Your task to perform on an android device: Open the calendar app, open the side menu, and click the "Day" option Image 0: 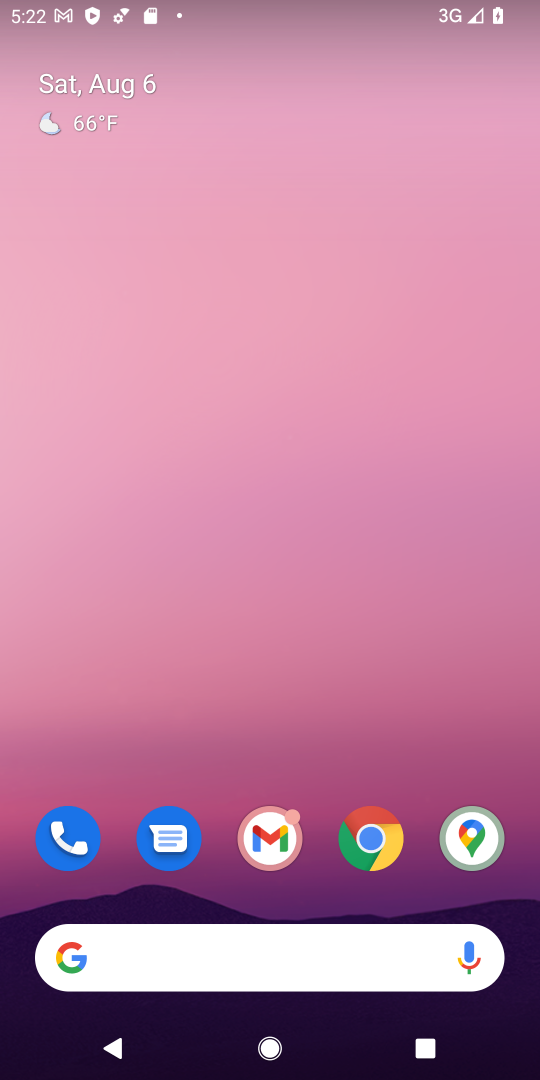
Step 0: drag from (291, 607) to (283, 11)
Your task to perform on an android device: Open the calendar app, open the side menu, and click the "Day" option Image 1: 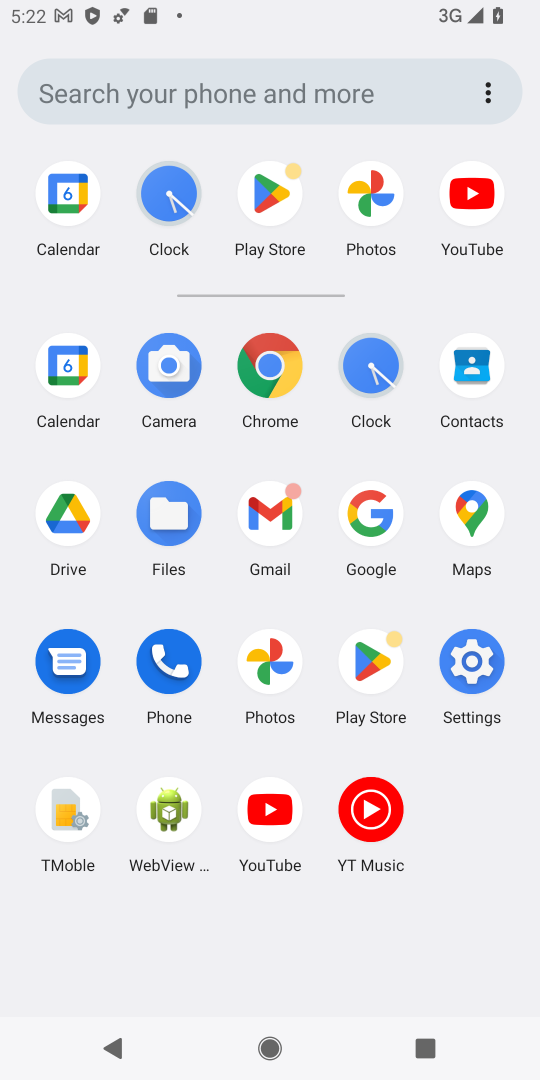
Step 1: click (79, 189)
Your task to perform on an android device: Open the calendar app, open the side menu, and click the "Day" option Image 2: 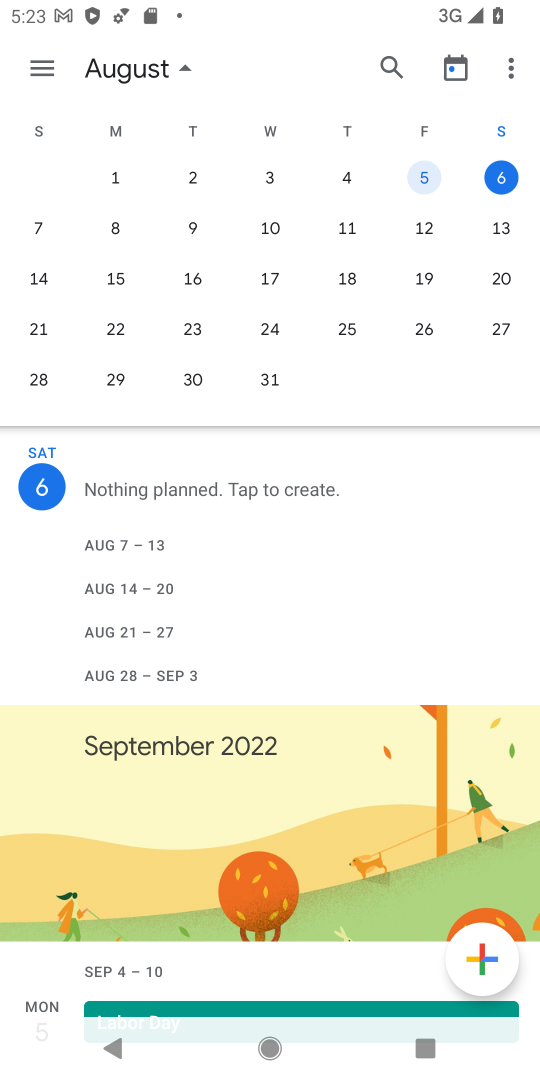
Step 2: click (33, 78)
Your task to perform on an android device: Open the calendar app, open the side menu, and click the "Day" option Image 3: 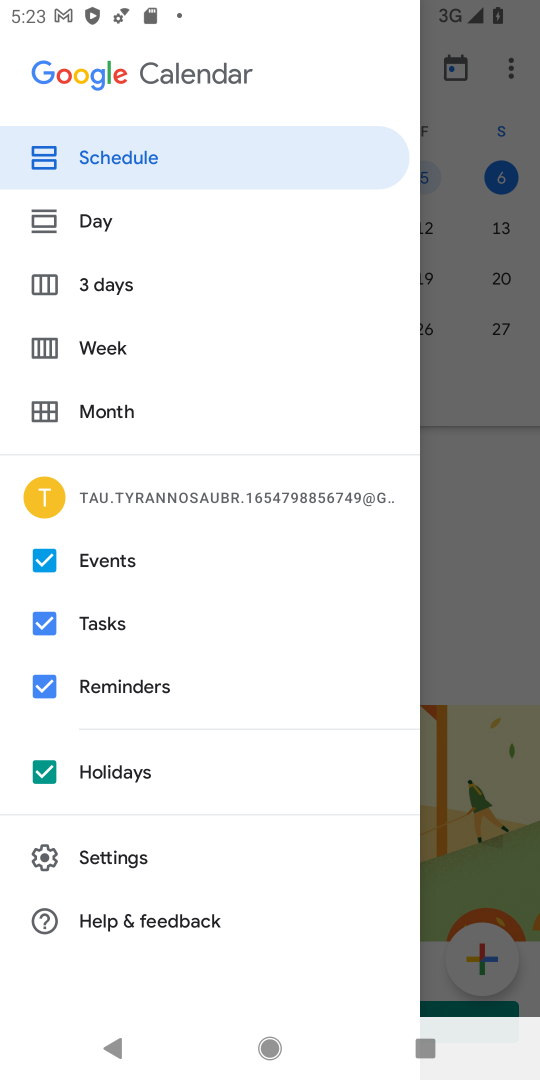
Step 3: click (117, 225)
Your task to perform on an android device: Open the calendar app, open the side menu, and click the "Day" option Image 4: 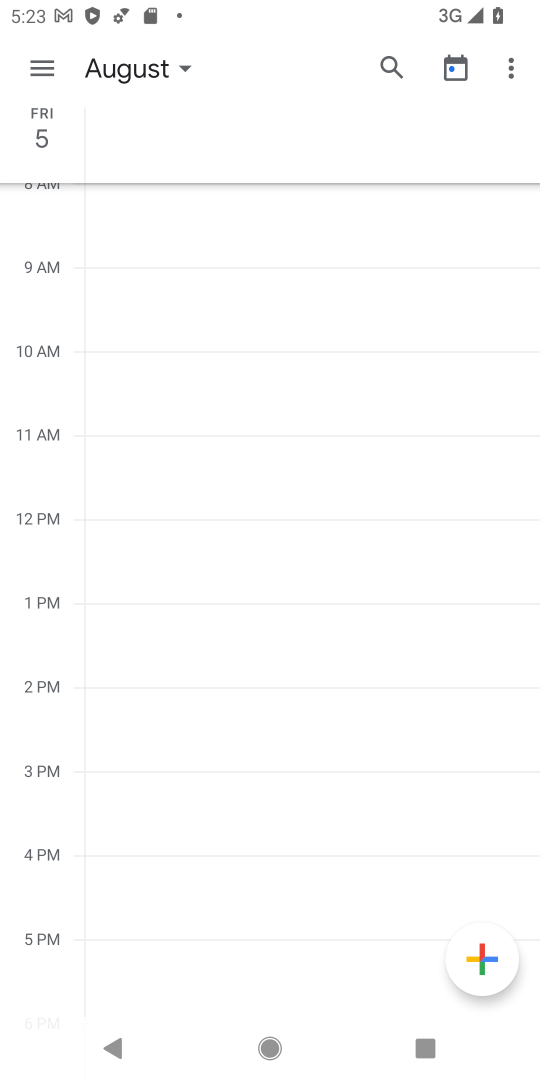
Step 4: task complete